Your task to perform on an android device: Open location settings Image 0: 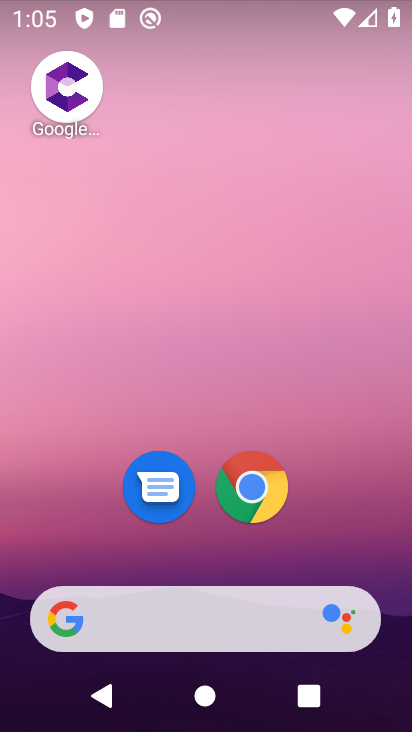
Step 0: drag from (295, 553) to (405, 35)
Your task to perform on an android device: Open location settings Image 1: 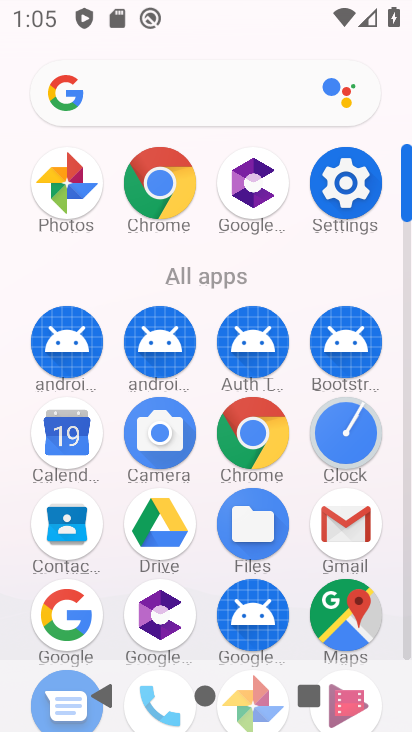
Step 1: click (329, 194)
Your task to perform on an android device: Open location settings Image 2: 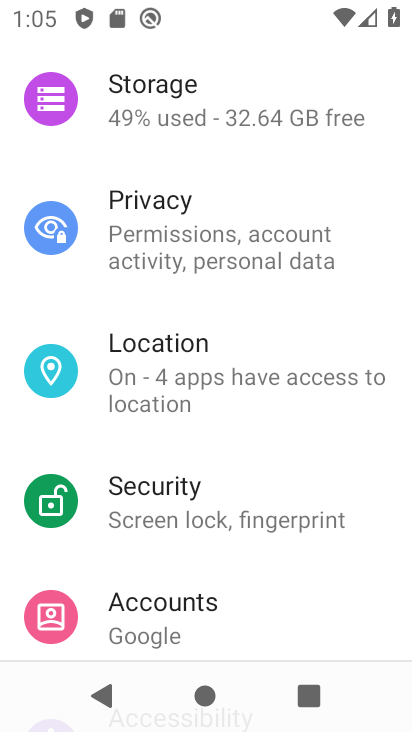
Step 2: click (194, 386)
Your task to perform on an android device: Open location settings Image 3: 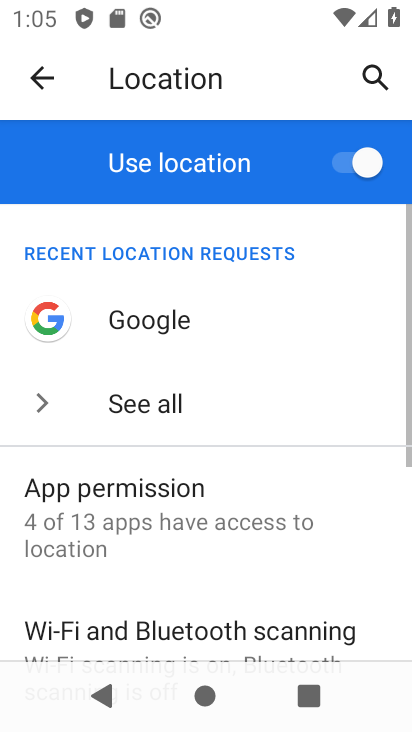
Step 3: task complete